Your task to perform on an android device: set default search engine in the chrome app Image 0: 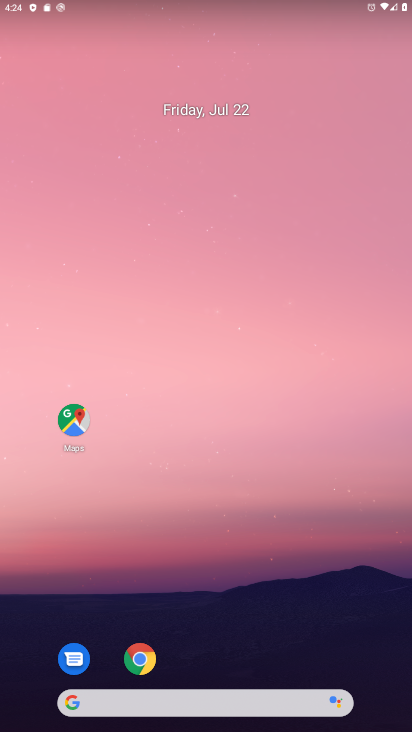
Step 0: click (139, 653)
Your task to perform on an android device: set default search engine in the chrome app Image 1: 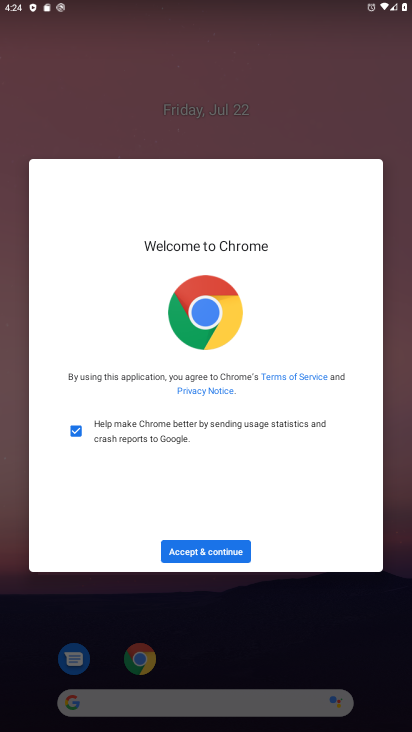
Step 1: click (203, 545)
Your task to perform on an android device: set default search engine in the chrome app Image 2: 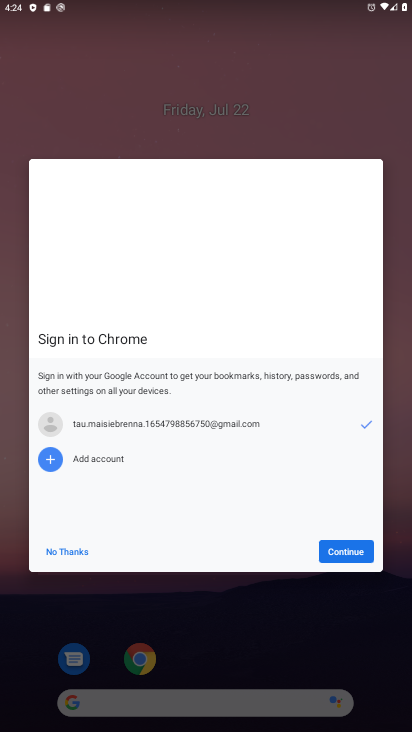
Step 2: click (342, 551)
Your task to perform on an android device: set default search engine in the chrome app Image 3: 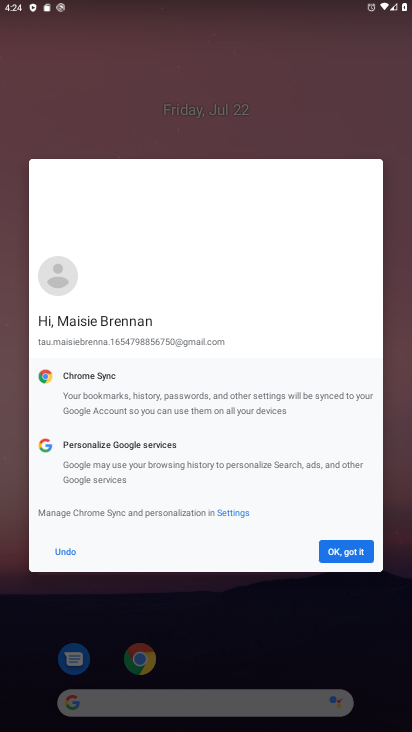
Step 3: click (348, 548)
Your task to perform on an android device: set default search engine in the chrome app Image 4: 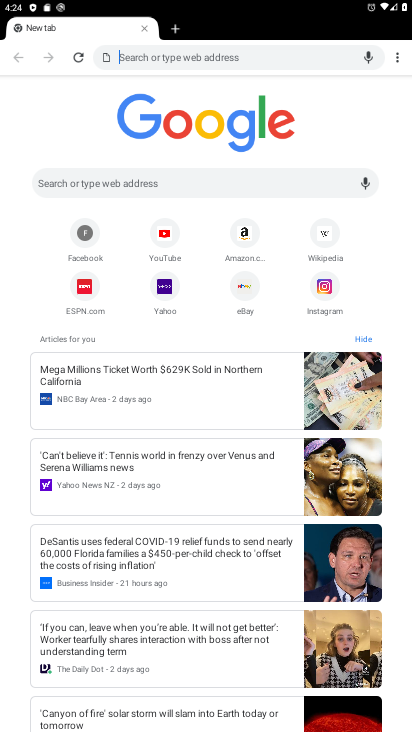
Step 4: click (395, 53)
Your task to perform on an android device: set default search engine in the chrome app Image 5: 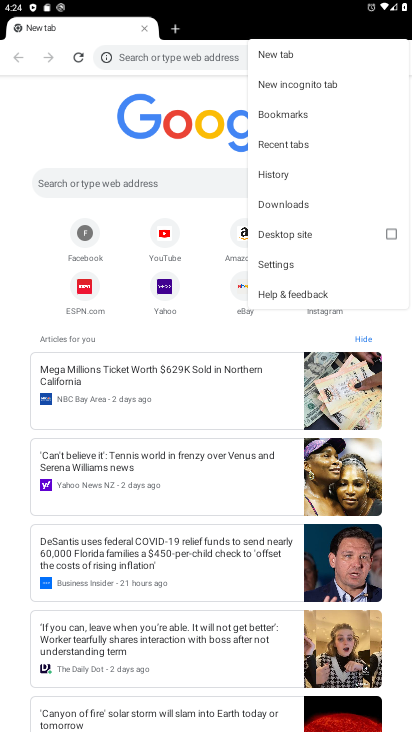
Step 5: click (295, 262)
Your task to perform on an android device: set default search engine in the chrome app Image 6: 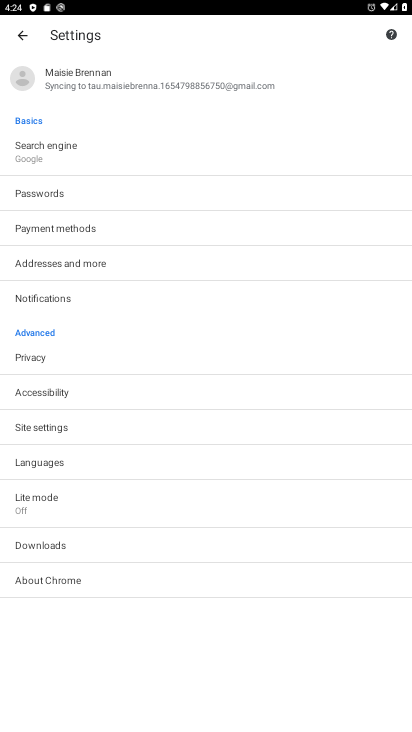
Step 6: click (82, 147)
Your task to perform on an android device: set default search engine in the chrome app Image 7: 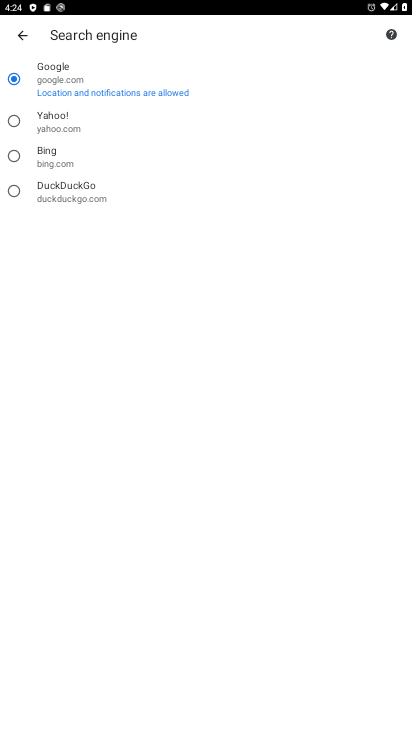
Step 7: click (14, 153)
Your task to perform on an android device: set default search engine in the chrome app Image 8: 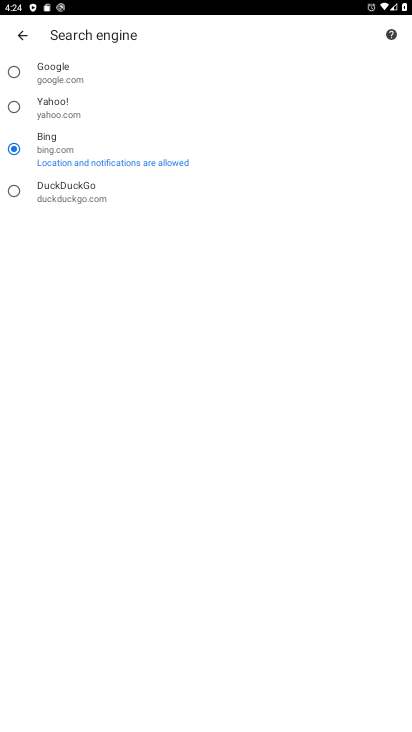
Step 8: task complete